Your task to perform on an android device: open app "Lyft - Rideshare, Bikes, Scooters & Transit" (install if not already installed) Image 0: 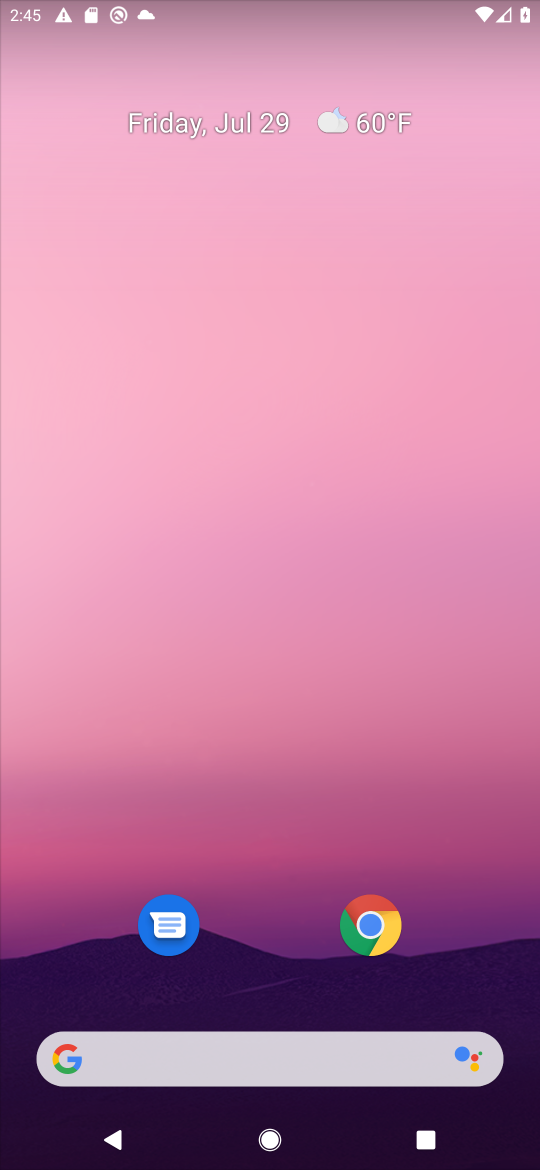
Step 0: drag from (491, 955) to (500, 85)
Your task to perform on an android device: open app "Lyft - Rideshare, Bikes, Scooters & Transit" (install if not already installed) Image 1: 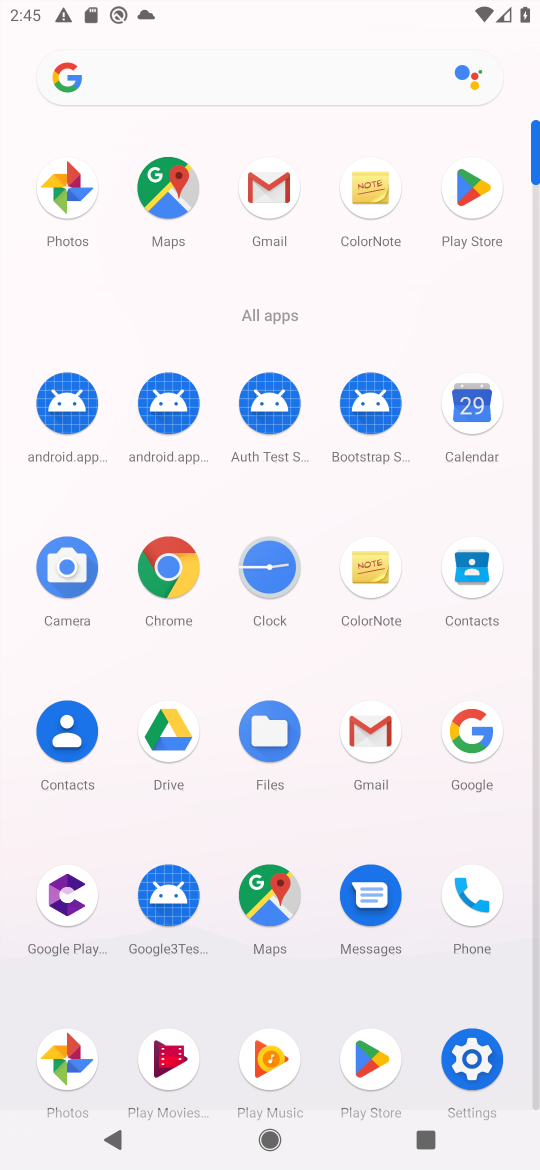
Step 1: click (458, 204)
Your task to perform on an android device: open app "Lyft - Rideshare, Bikes, Scooters & Transit" (install if not already installed) Image 2: 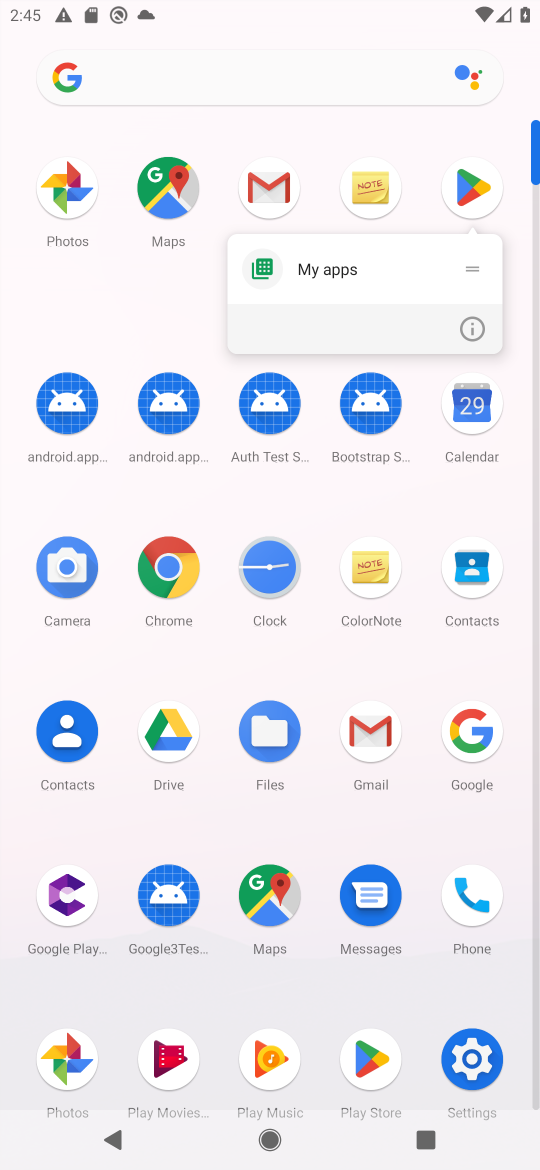
Step 2: click (458, 199)
Your task to perform on an android device: open app "Lyft - Rideshare, Bikes, Scooters & Transit" (install if not already installed) Image 3: 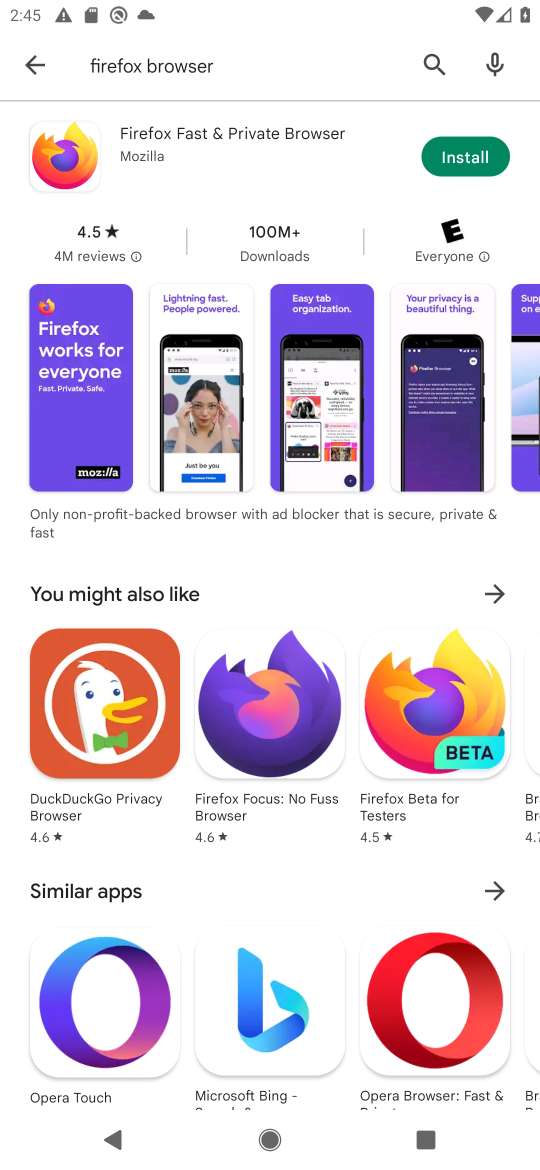
Step 3: click (425, 62)
Your task to perform on an android device: open app "Lyft - Rideshare, Bikes, Scooters & Transit" (install if not already installed) Image 4: 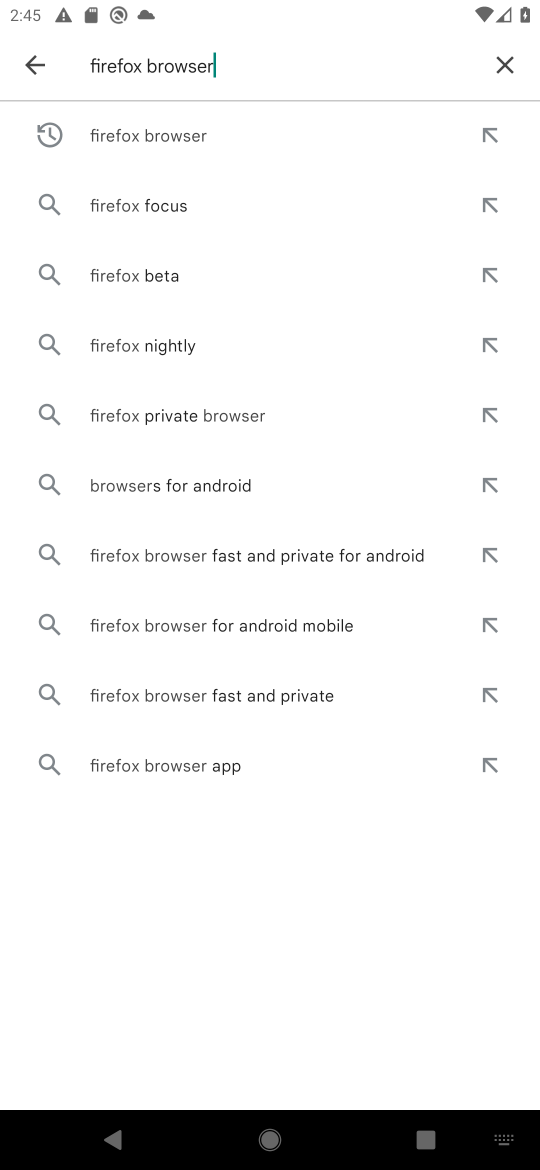
Step 4: click (501, 69)
Your task to perform on an android device: open app "Lyft - Rideshare, Bikes, Scooters & Transit" (install if not already installed) Image 5: 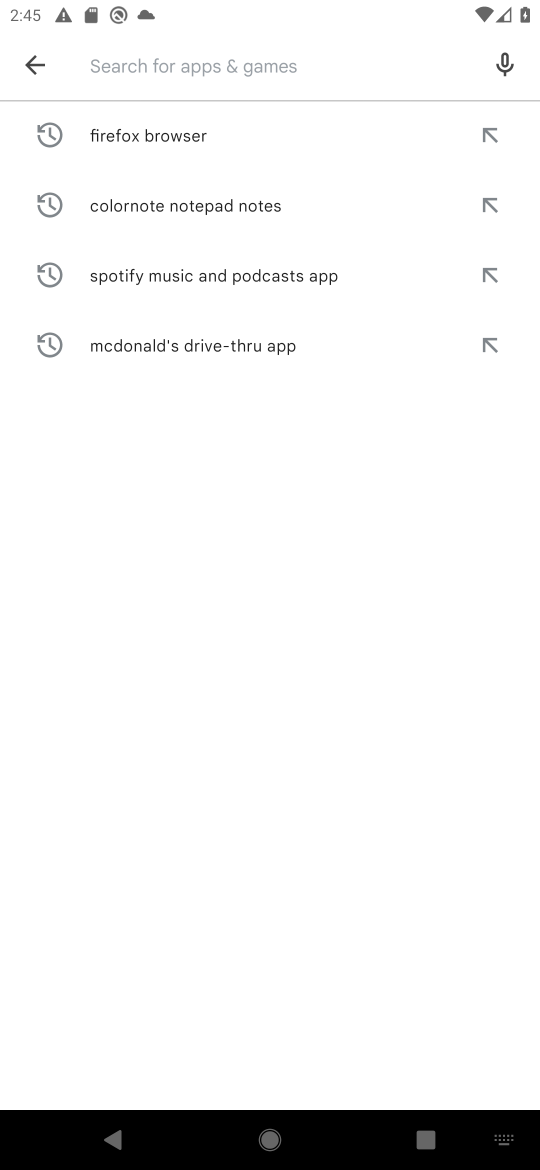
Step 5: type "Lyft - Rideshare, Bikes, Scooters & Transit"
Your task to perform on an android device: open app "Lyft - Rideshare, Bikes, Scooters & Transit" (install if not already installed) Image 6: 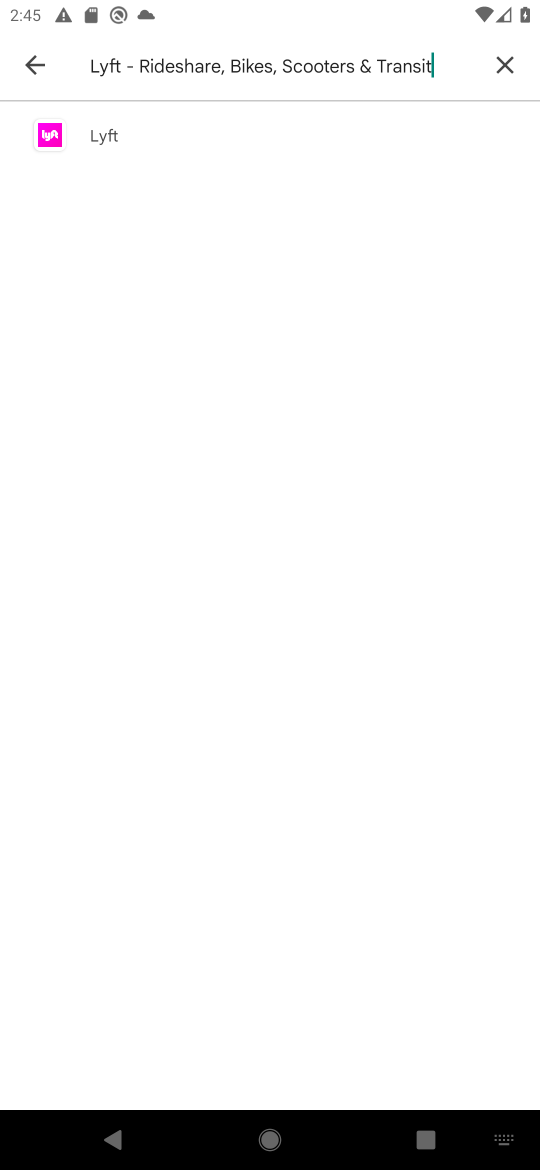
Step 6: click (78, 140)
Your task to perform on an android device: open app "Lyft - Rideshare, Bikes, Scooters & Transit" (install if not already installed) Image 7: 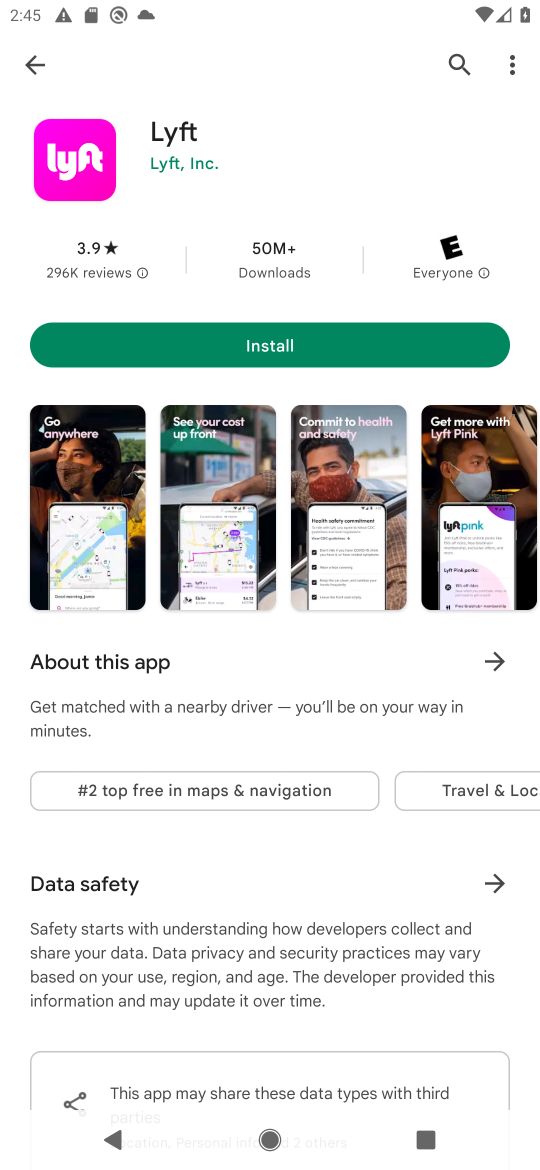
Step 7: click (258, 320)
Your task to perform on an android device: open app "Lyft - Rideshare, Bikes, Scooters & Transit" (install if not already installed) Image 8: 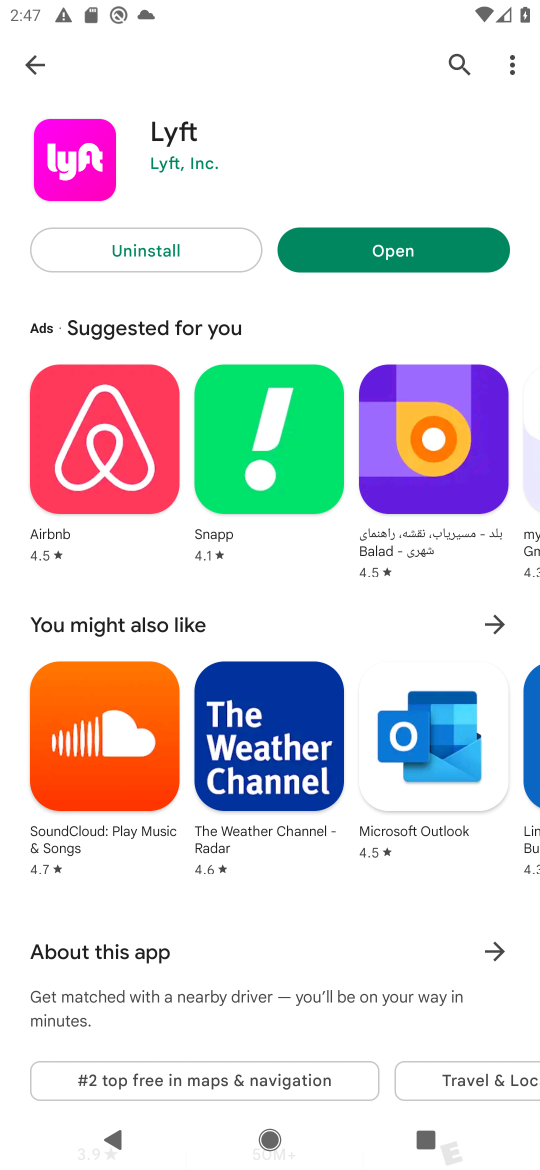
Step 8: click (393, 248)
Your task to perform on an android device: open app "Lyft - Rideshare, Bikes, Scooters & Transit" (install if not already installed) Image 9: 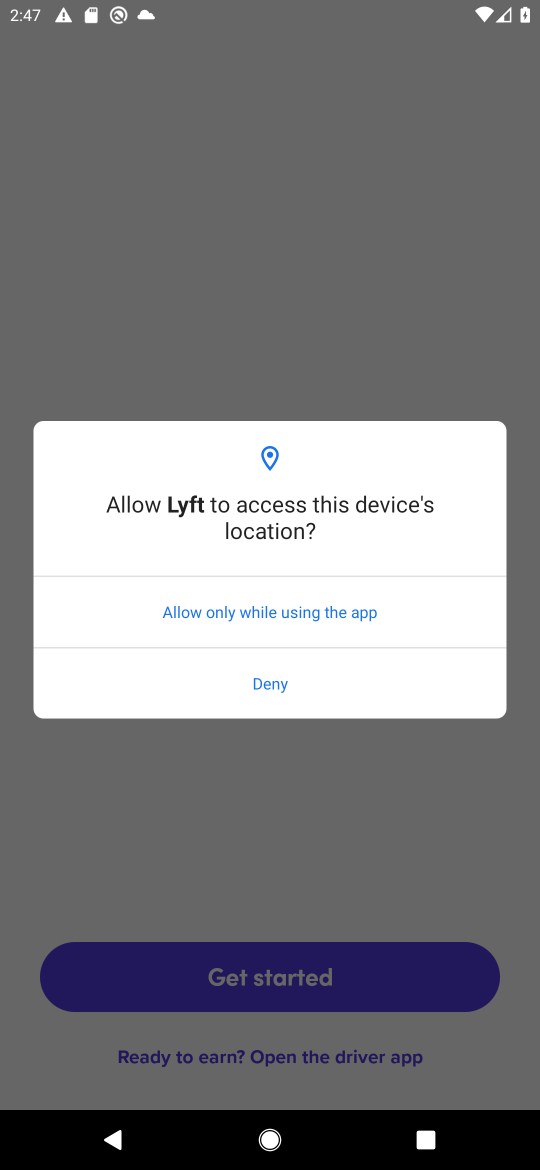
Step 9: task complete